Your task to perform on an android device: change the upload size in google photos Image 0: 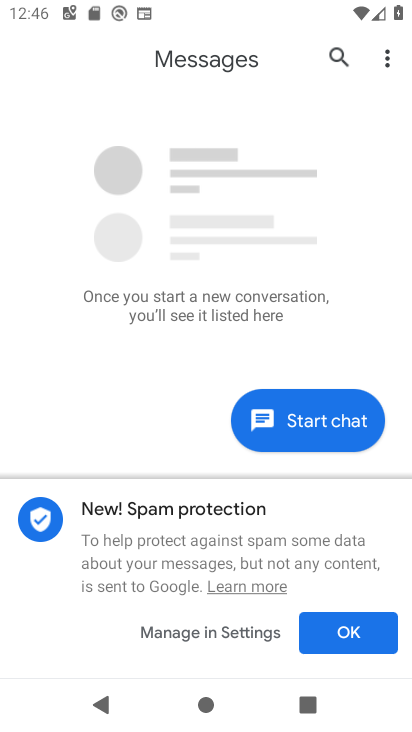
Step 0: press home button
Your task to perform on an android device: change the upload size in google photos Image 1: 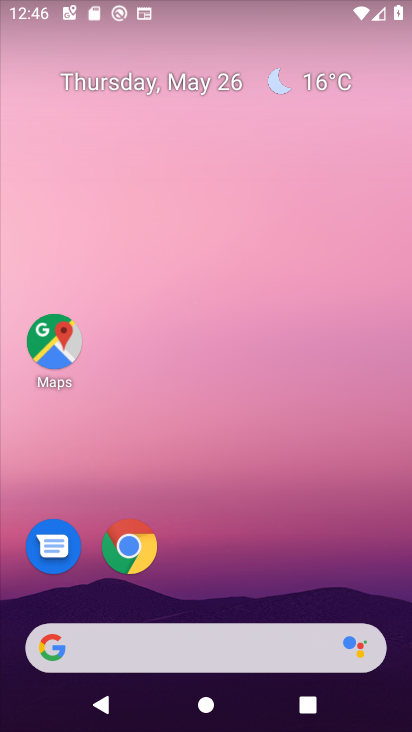
Step 1: drag from (164, 569) to (166, 226)
Your task to perform on an android device: change the upload size in google photos Image 2: 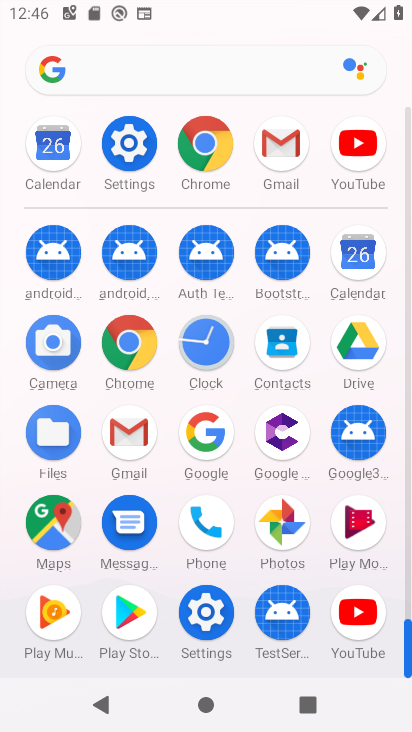
Step 2: click (286, 526)
Your task to perform on an android device: change the upload size in google photos Image 3: 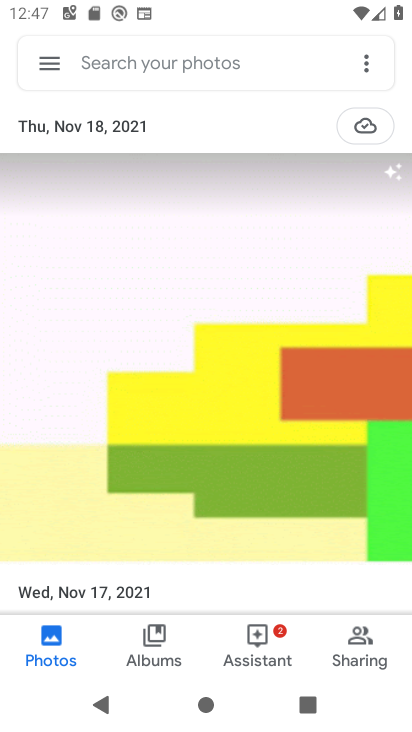
Step 3: click (368, 64)
Your task to perform on an android device: change the upload size in google photos Image 4: 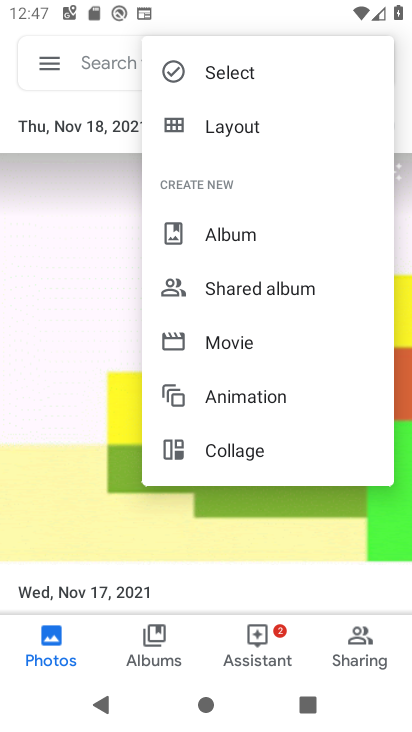
Step 4: click (55, 161)
Your task to perform on an android device: change the upload size in google photos Image 5: 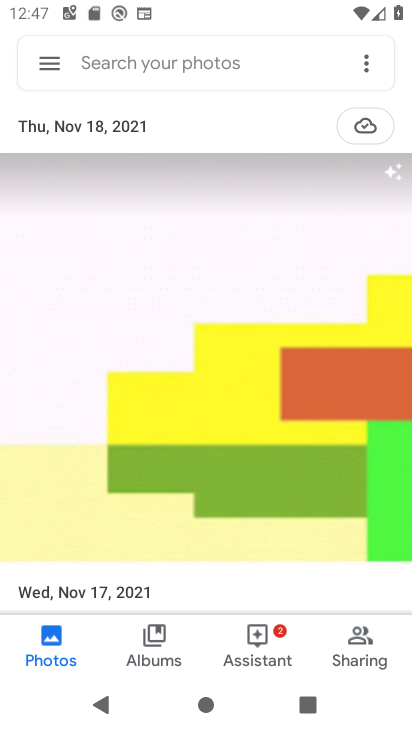
Step 5: click (35, 69)
Your task to perform on an android device: change the upload size in google photos Image 6: 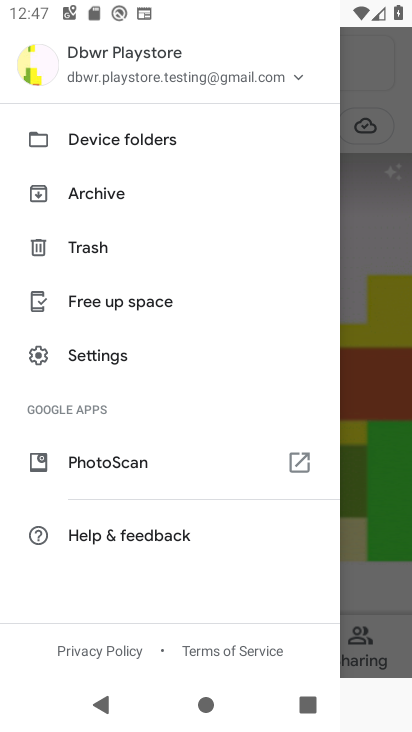
Step 6: drag from (122, 523) to (168, 401)
Your task to perform on an android device: change the upload size in google photos Image 7: 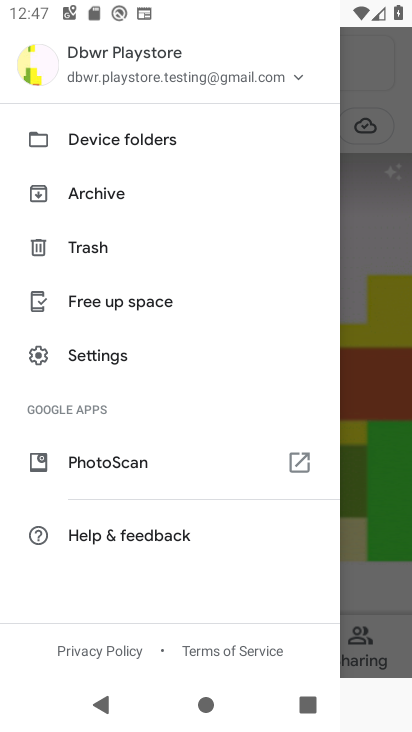
Step 7: click (97, 349)
Your task to perform on an android device: change the upload size in google photos Image 8: 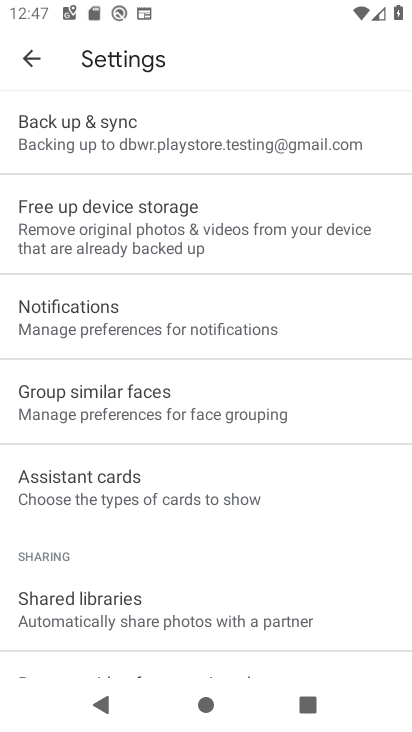
Step 8: click (121, 135)
Your task to perform on an android device: change the upload size in google photos Image 9: 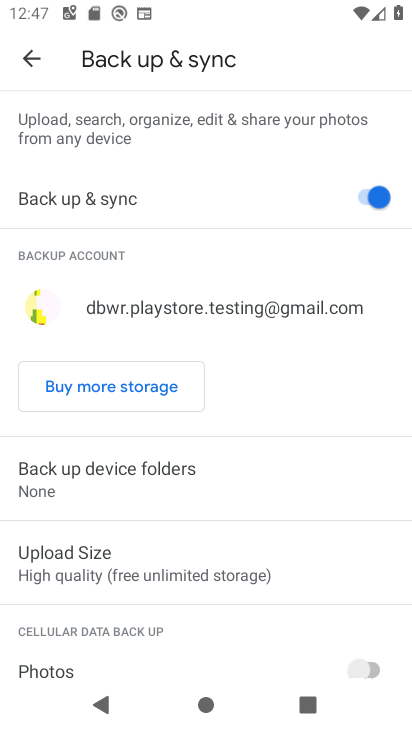
Step 9: click (84, 575)
Your task to perform on an android device: change the upload size in google photos Image 10: 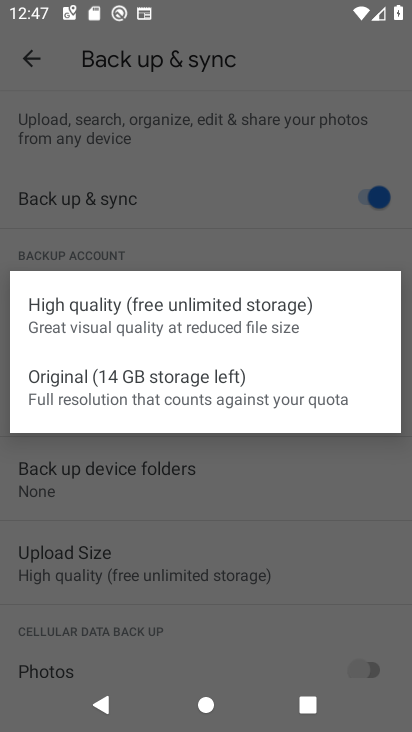
Step 10: click (166, 322)
Your task to perform on an android device: change the upload size in google photos Image 11: 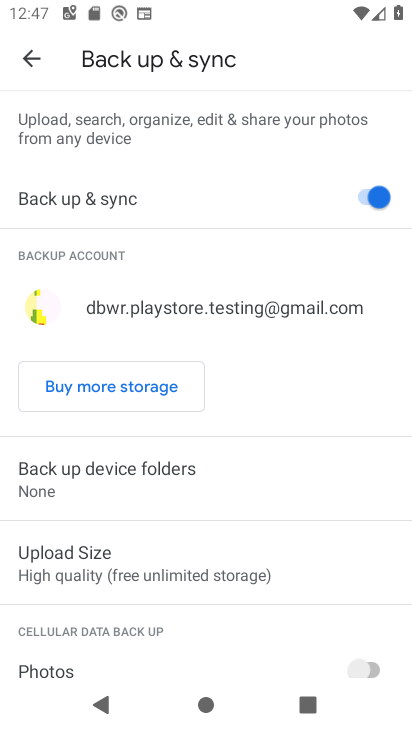
Step 11: task complete